Your task to perform on an android device: install app "Upside-Cash back on gas & food" Image 0: 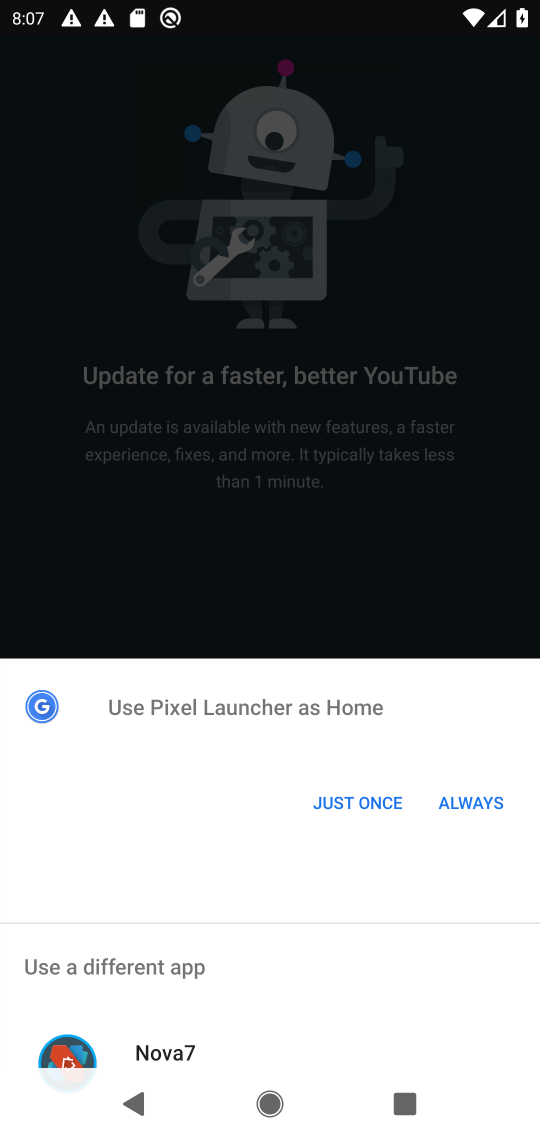
Step 0: click (374, 790)
Your task to perform on an android device: install app "Upside-Cash back on gas & food" Image 1: 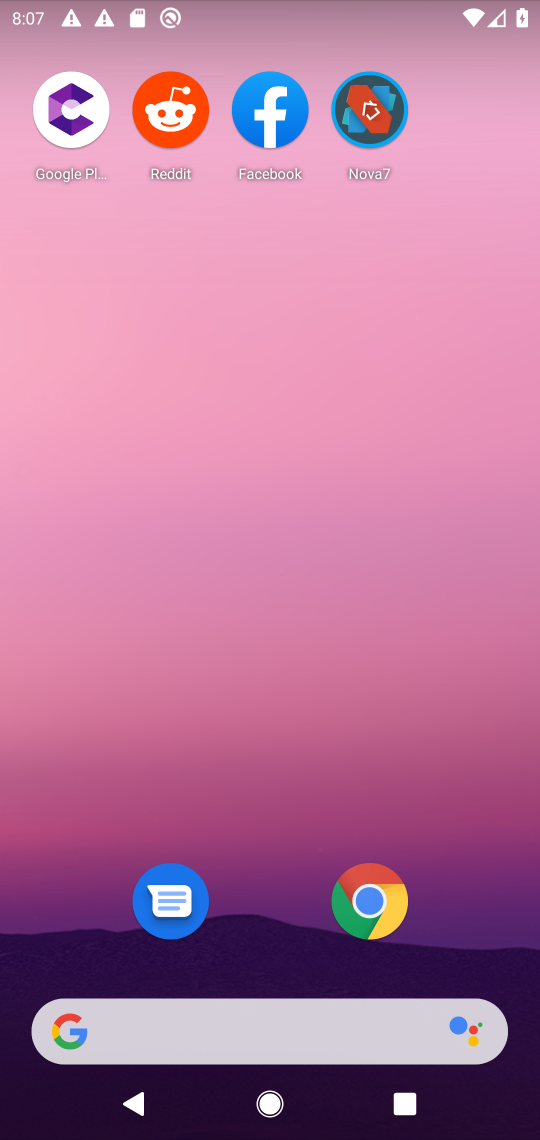
Step 1: drag from (298, 958) to (171, 1)
Your task to perform on an android device: install app "Upside-Cash back on gas & food" Image 2: 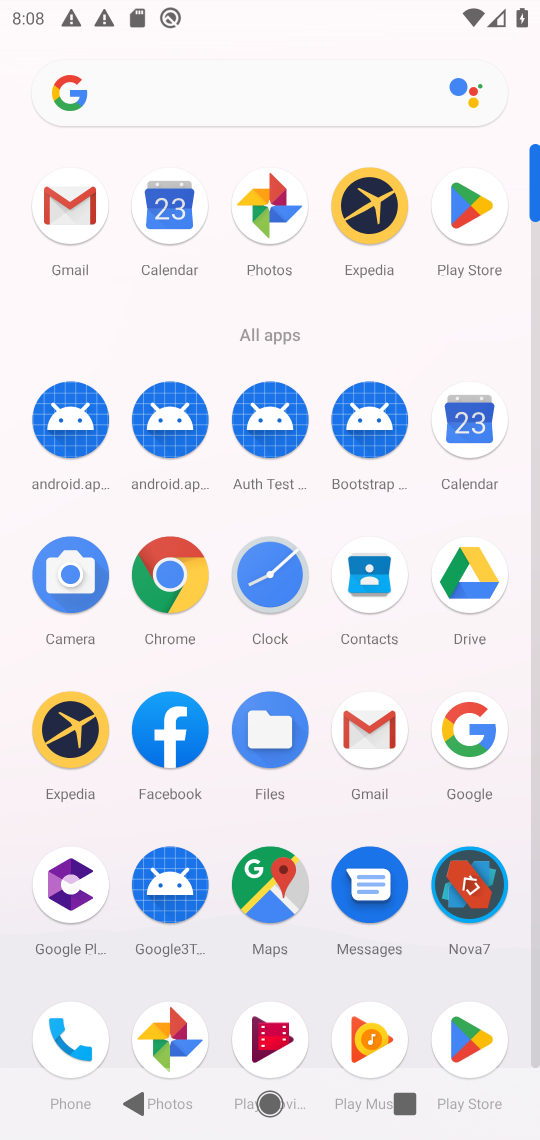
Step 2: click (469, 224)
Your task to perform on an android device: install app "Upside-Cash back on gas & food" Image 3: 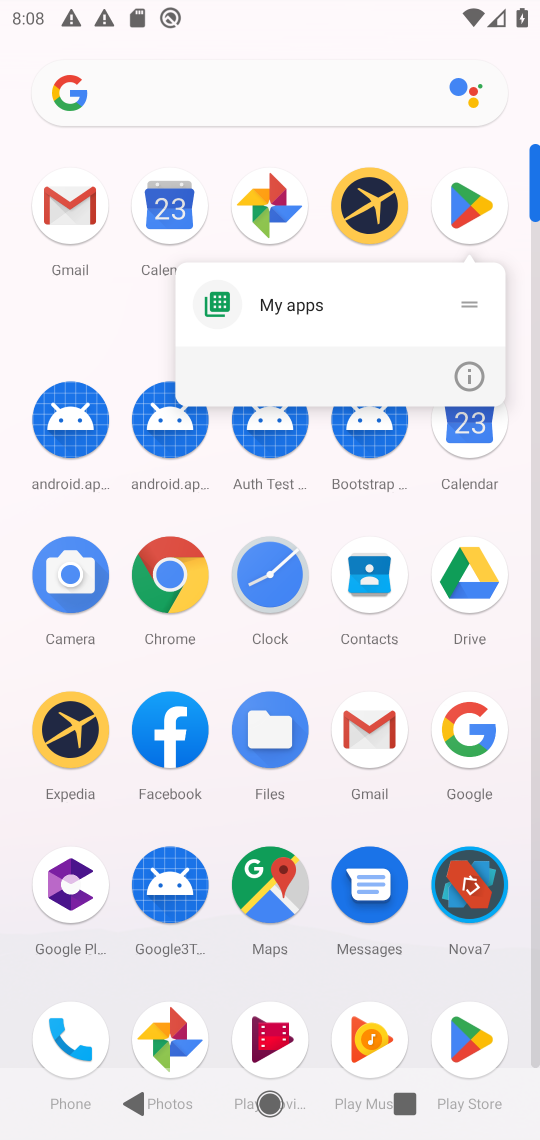
Step 3: click (469, 223)
Your task to perform on an android device: install app "Upside-Cash back on gas & food" Image 4: 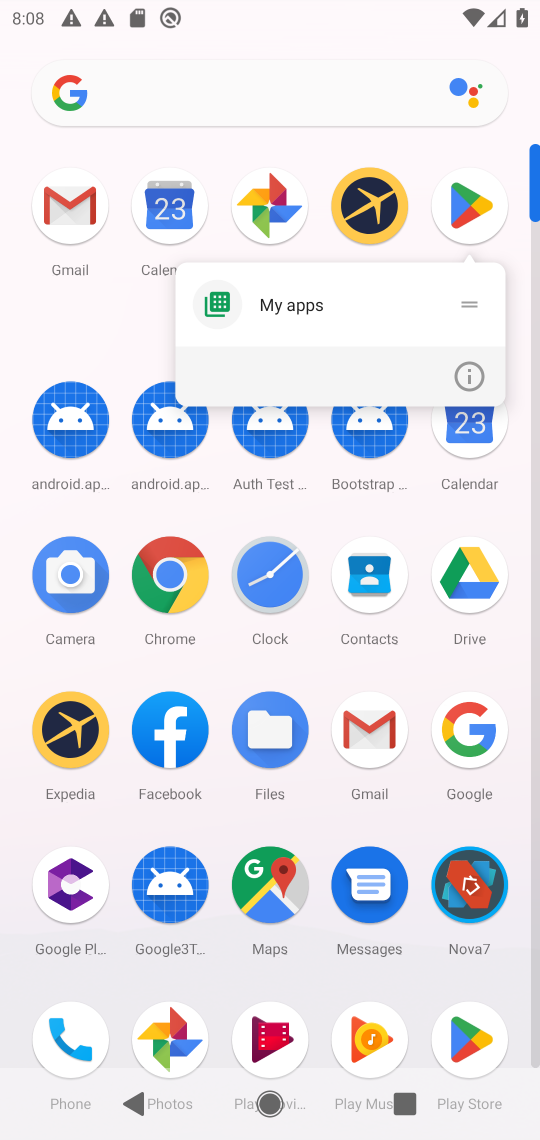
Step 4: click (469, 221)
Your task to perform on an android device: install app "Upside-Cash back on gas & food" Image 5: 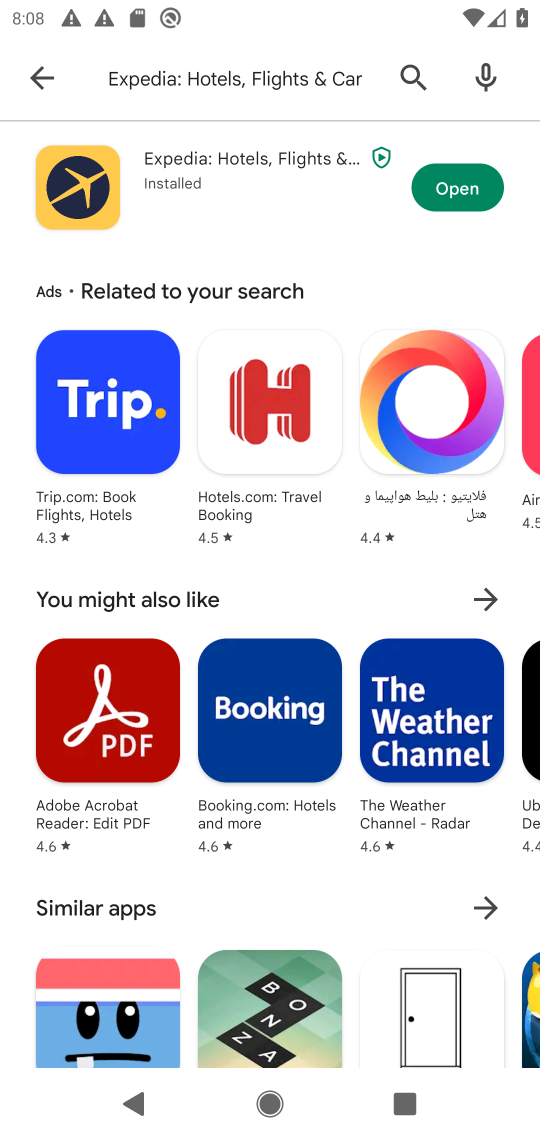
Step 5: press back button
Your task to perform on an android device: install app "Upside-Cash back on gas & food" Image 6: 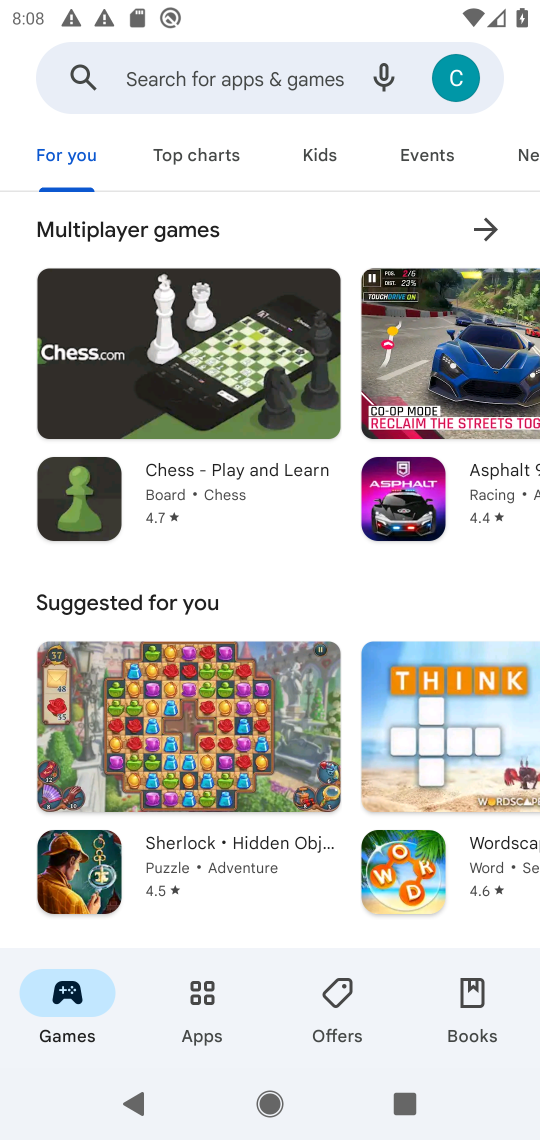
Step 6: click (166, 86)
Your task to perform on an android device: install app "Upside-Cash back on gas & food" Image 7: 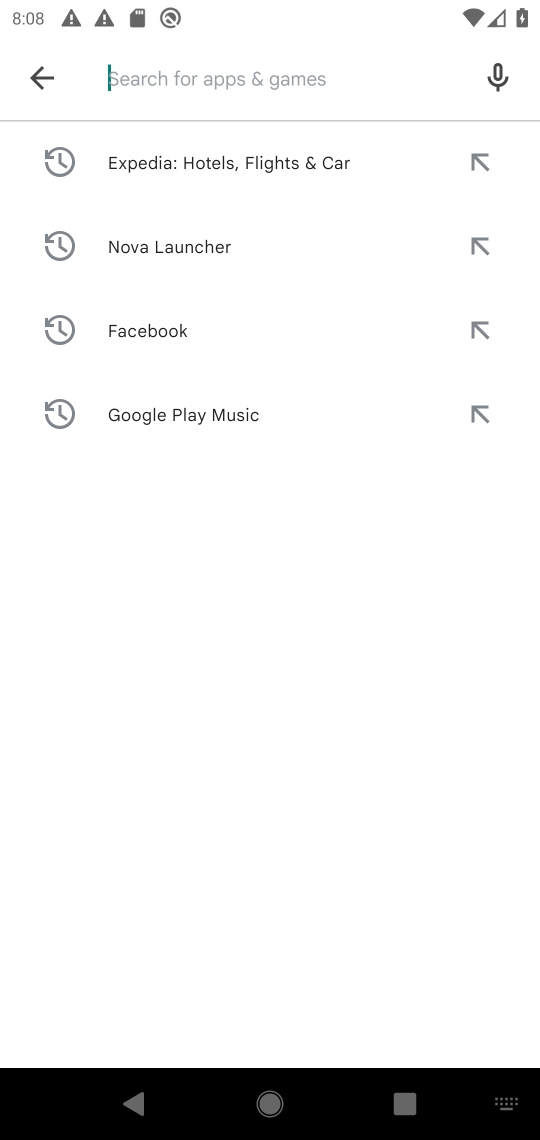
Step 7: type "Upside-Cash back on gas & food"
Your task to perform on an android device: install app "Upside-Cash back on gas & food" Image 8: 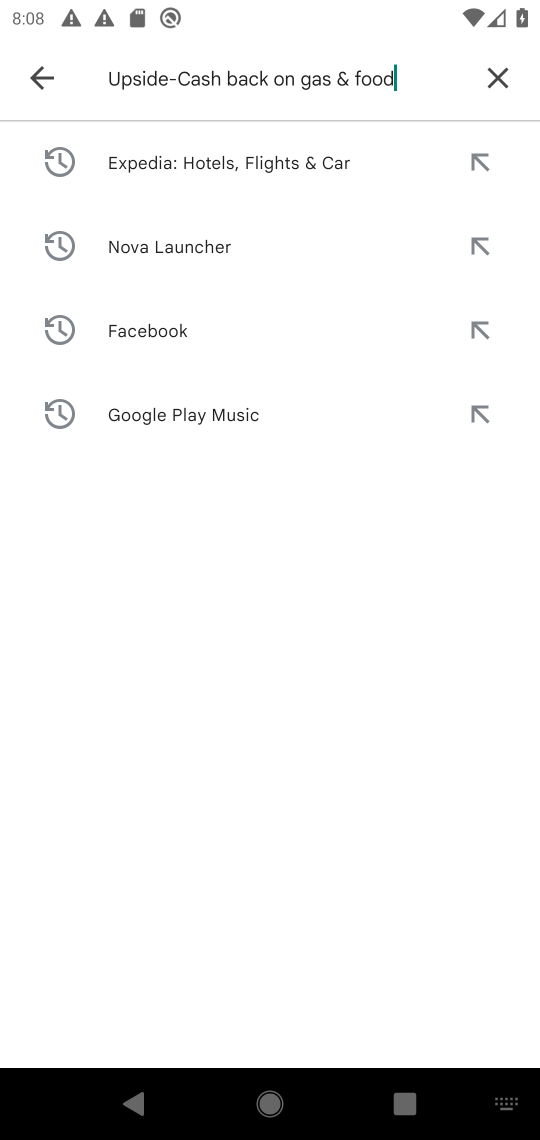
Step 8: press enter
Your task to perform on an android device: install app "Upside-Cash back on gas & food" Image 9: 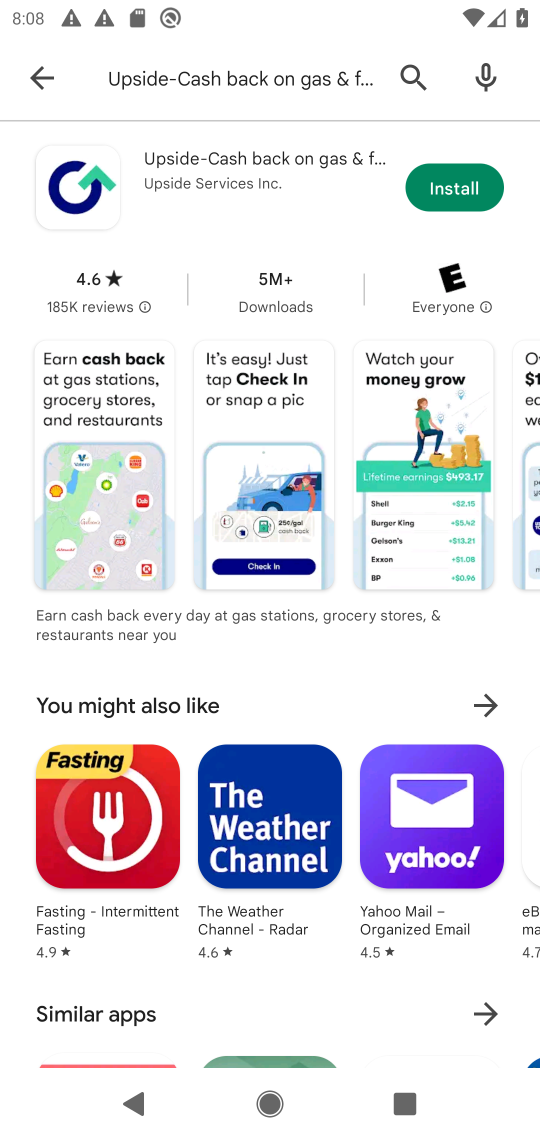
Step 9: click (425, 175)
Your task to perform on an android device: install app "Upside-Cash back on gas & food" Image 10: 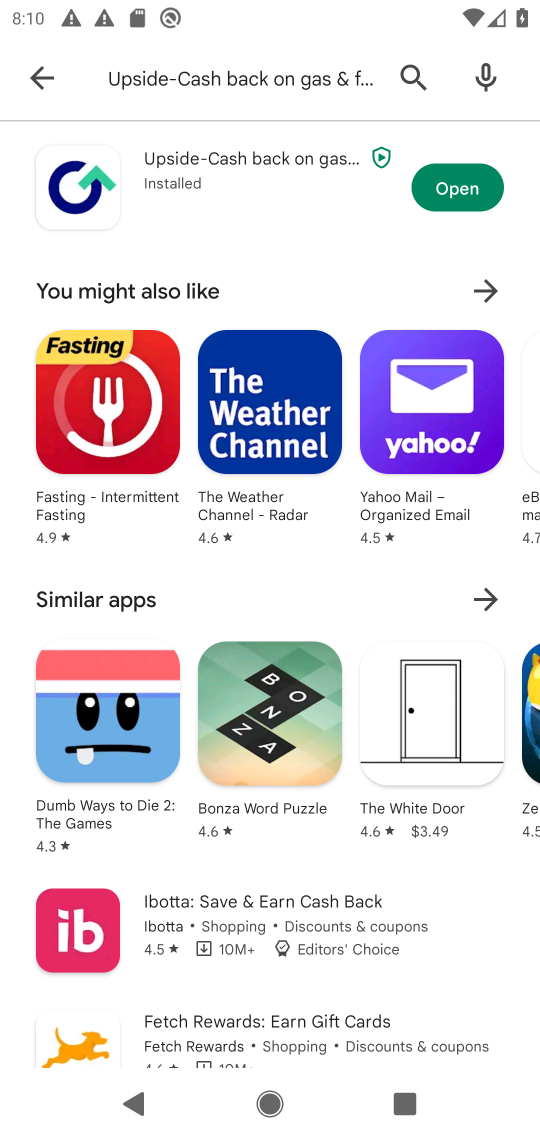
Step 10: click (470, 192)
Your task to perform on an android device: install app "Upside-Cash back on gas & food" Image 11: 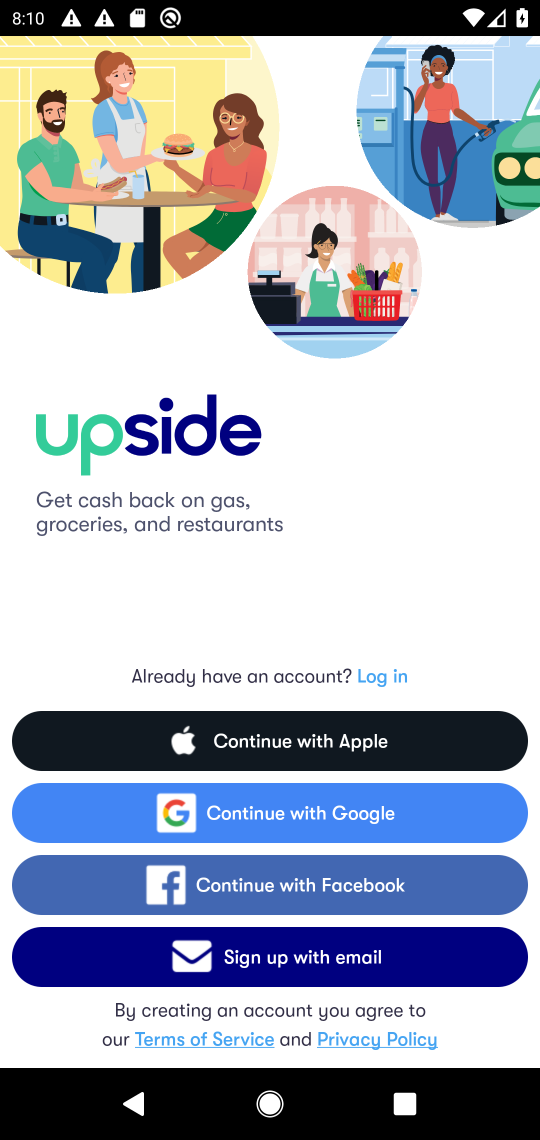
Step 11: task complete